Your task to perform on an android device: Open Google Image 0: 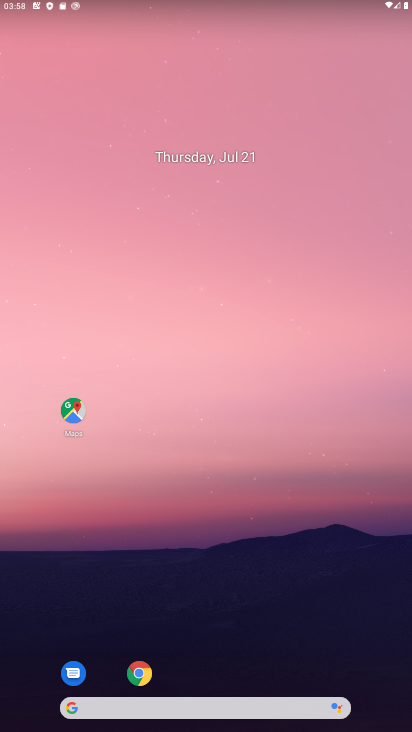
Step 0: drag from (289, 615) to (364, 29)
Your task to perform on an android device: Open Google Image 1: 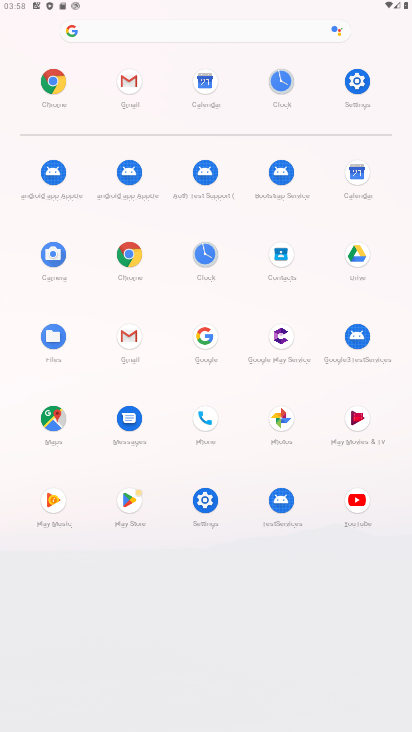
Step 1: click (205, 332)
Your task to perform on an android device: Open Google Image 2: 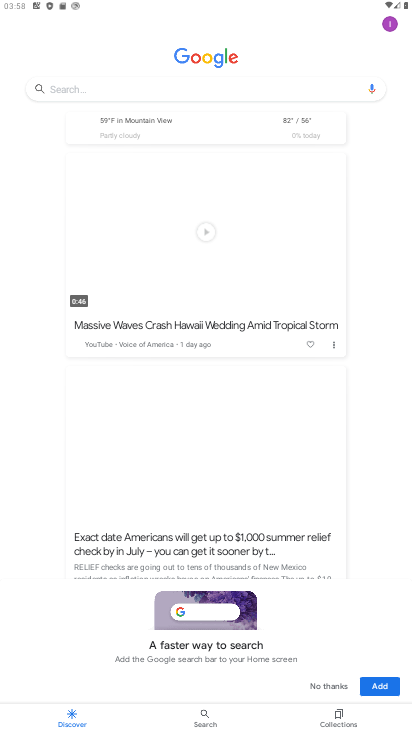
Step 2: task complete